Your task to perform on an android device: Check the news Image 0: 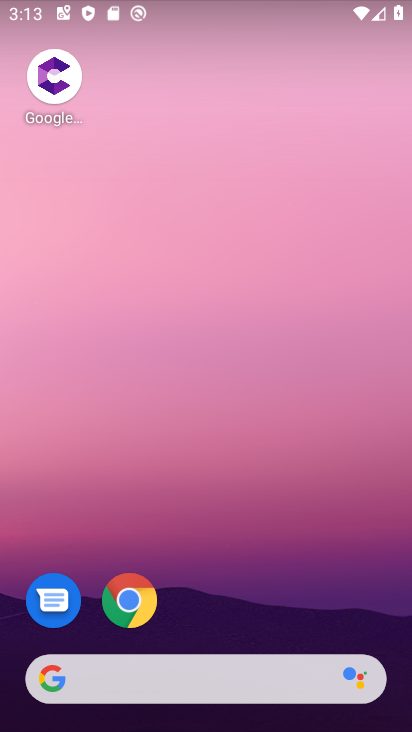
Step 0: click (151, 598)
Your task to perform on an android device: Check the news Image 1: 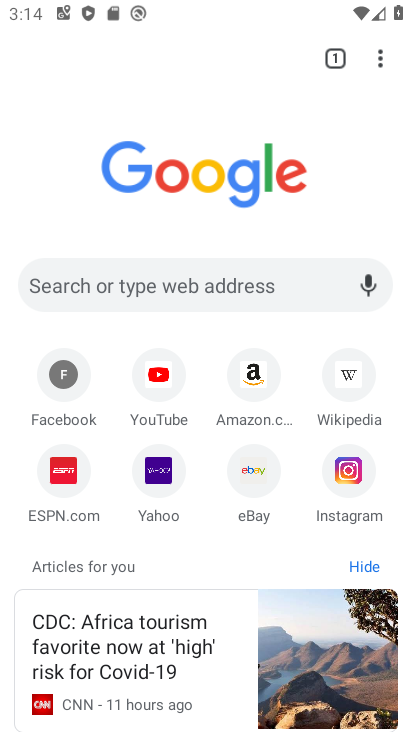
Step 1: click (312, 289)
Your task to perform on an android device: Check the news Image 2: 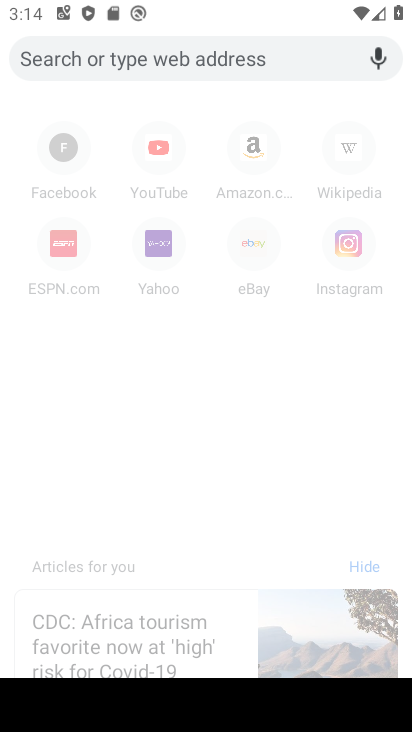
Step 2: type "news"
Your task to perform on an android device: Check the news Image 3: 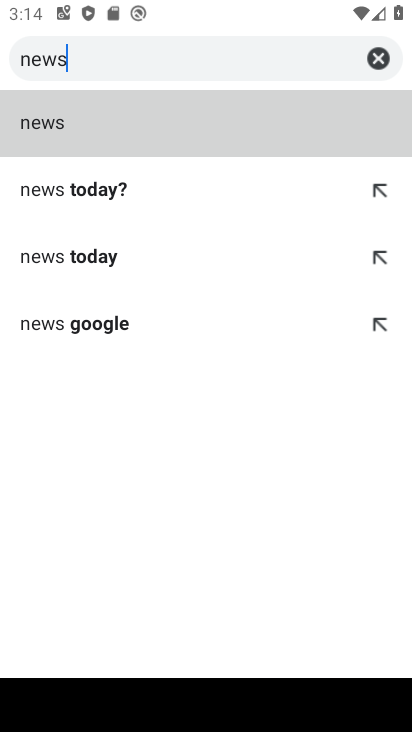
Step 3: click (63, 117)
Your task to perform on an android device: Check the news Image 4: 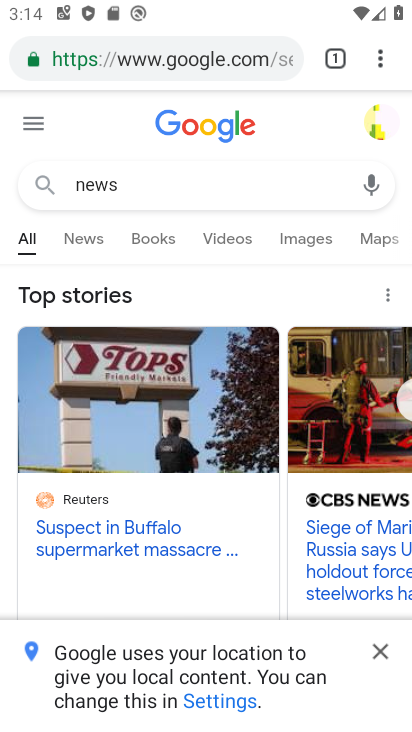
Step 4: task complete